Your task to perform on an android device: change the clock style Image 0: 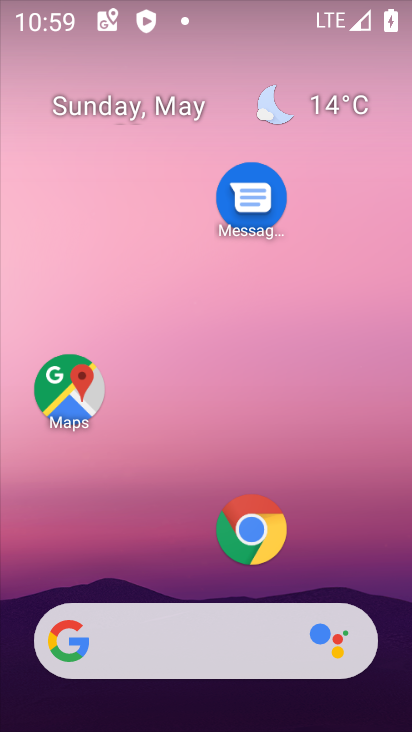
Step 0: drag from (168, 566) to (184, 258)
Your task to perform on an android device: change the clock style Image 1: 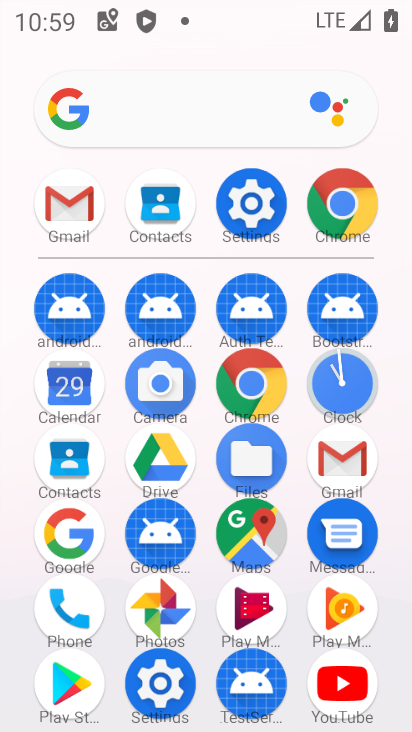
Step 1: click (349, 381)
Your task to perform on an android device: change the clock style Image 2: 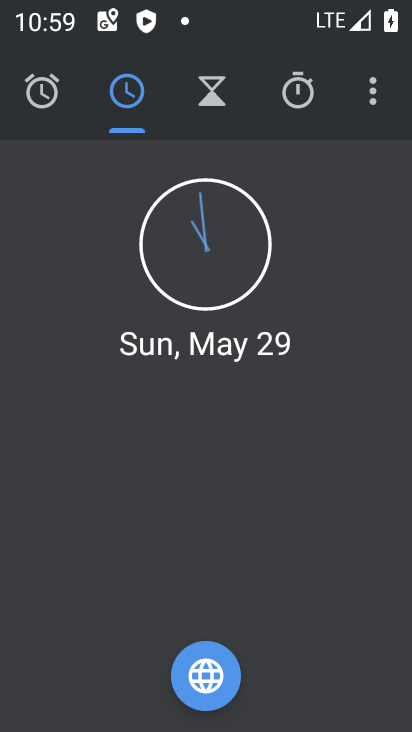
Step 2: click (371, 111)
Your task to perform on an android device: change the clock style Image 3: 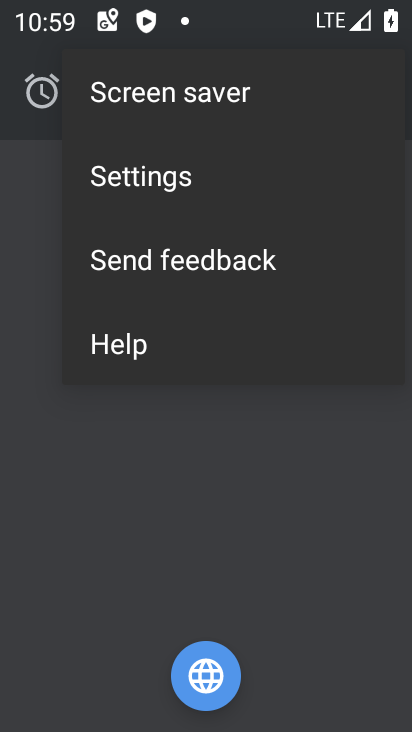
Step 3: click (184, 204)
Your task to perform on an android device: change the clock style Image 4: 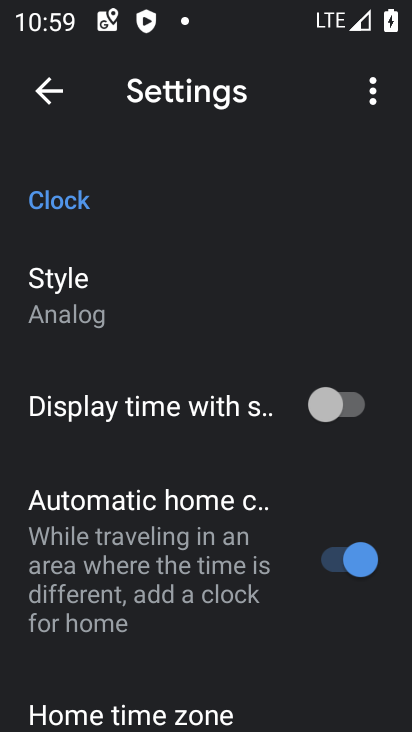
Step 4: click (128, 317)
Your task to perform on an android device: change the clock style Image 5: 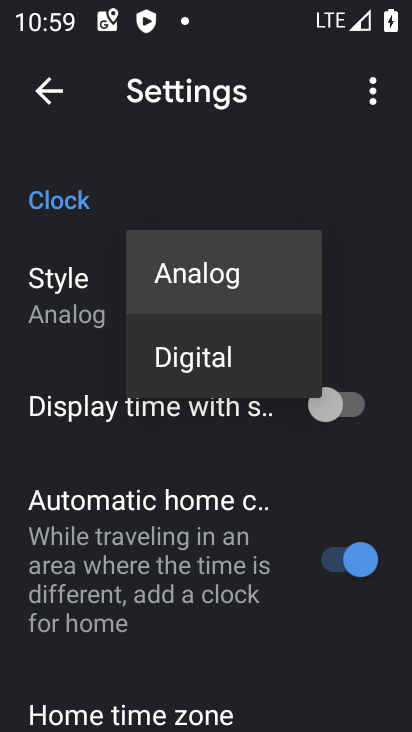
Step 5: click (187, 354)
Your task to perform on an android device: change the clock style Image 6: 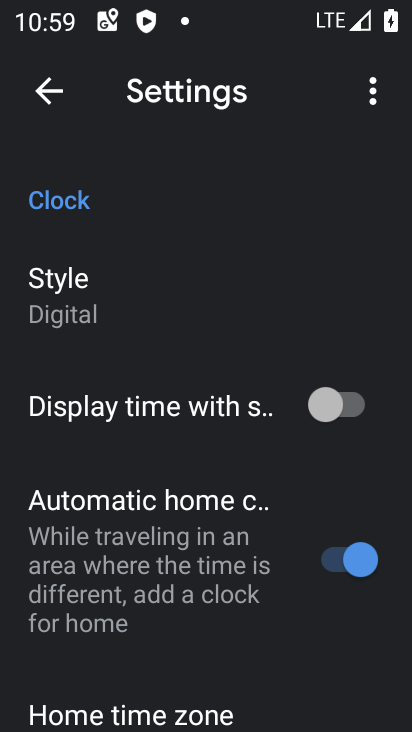
Step 6: task complete